Your task to perform on an android device: turn on wifi Image 0: 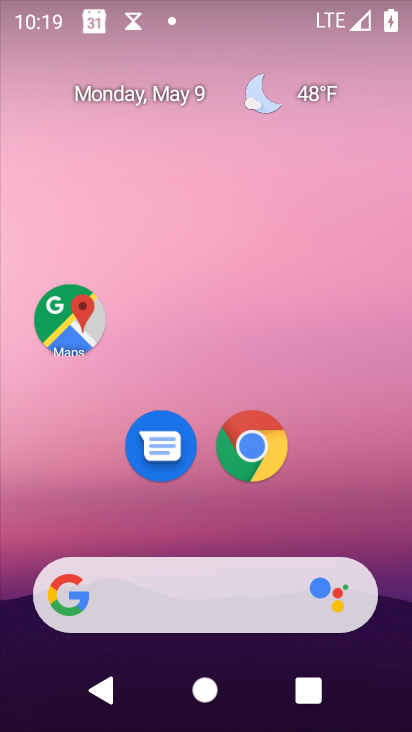
Step 0: drag from (307, 511) to (309, 167)
Your task to perform on an android device: turn on wifi Image 1: 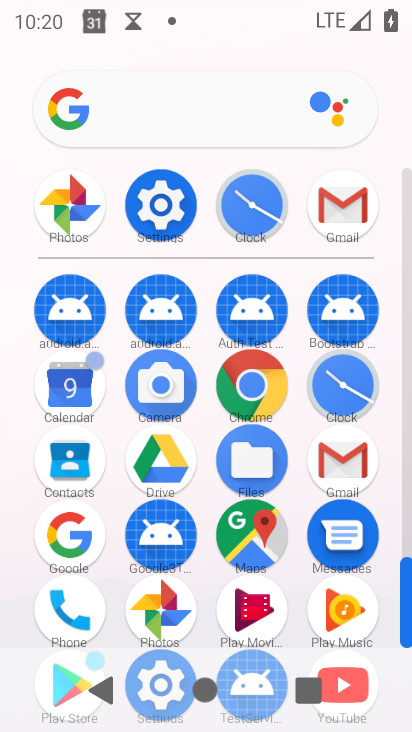
Step 1: click (162, 214)
Your task to perform on an android device: turn on wifi Image 2: 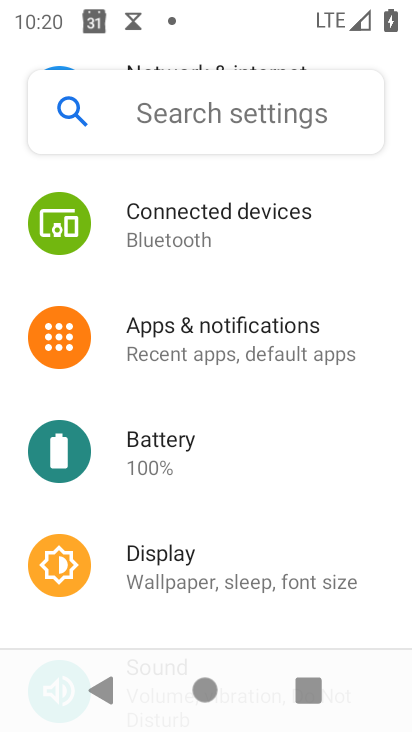
Step 2: drag from (228, 272) to (186, 551)
Your task to perform on an android device: turn on wifi Image 3: 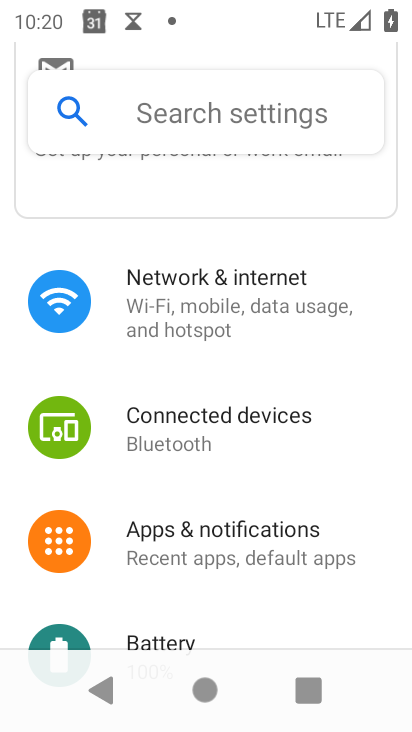
Step 3: click (198, 306)
Your task to perform on an android device: turn on wifi Image 4: 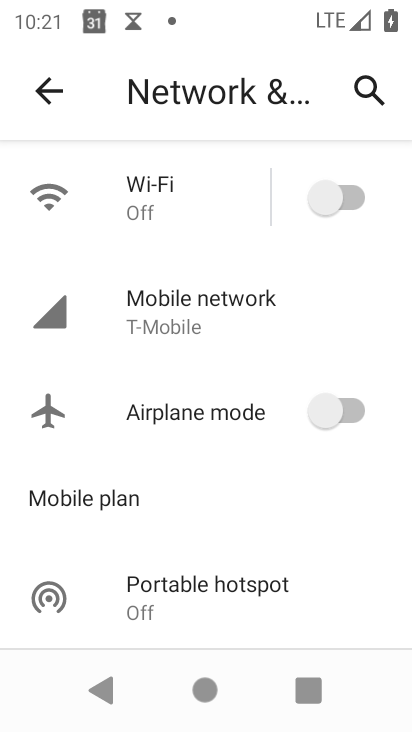
Step 4: click (344, 197)
Your task to perform on an android device: turn on wifi Image 5: 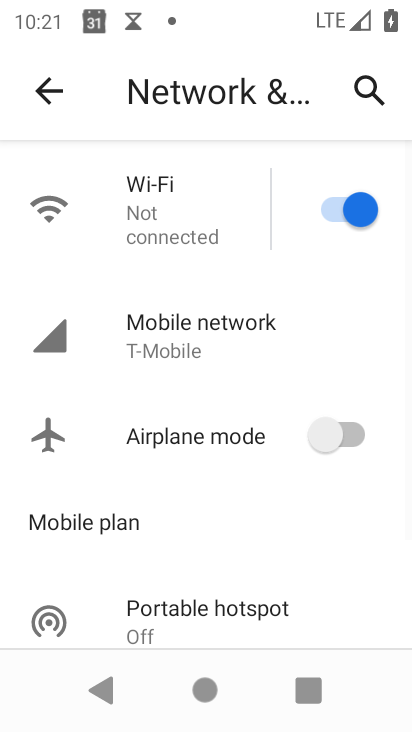
Step 5: task complete